Your task to perform on an android device: turn off location Image 0: 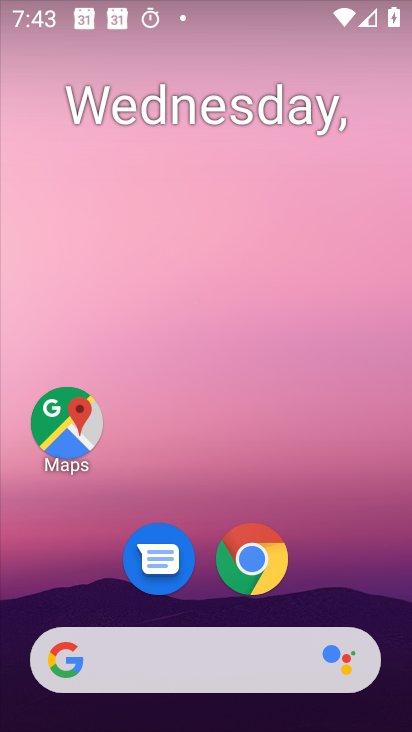
Step 0: drag from (330, 585) to (297, 1)
Your task to perform on an android device: turn off location Image 1: 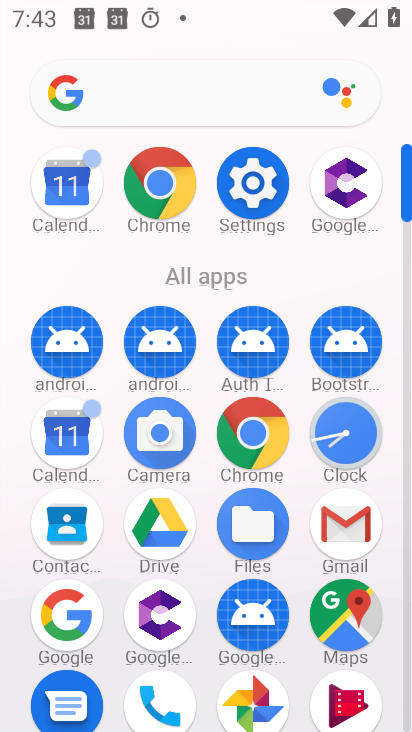
Step 1: click (250, 197)
Your task to perform on an android device: turn off location Image 2: 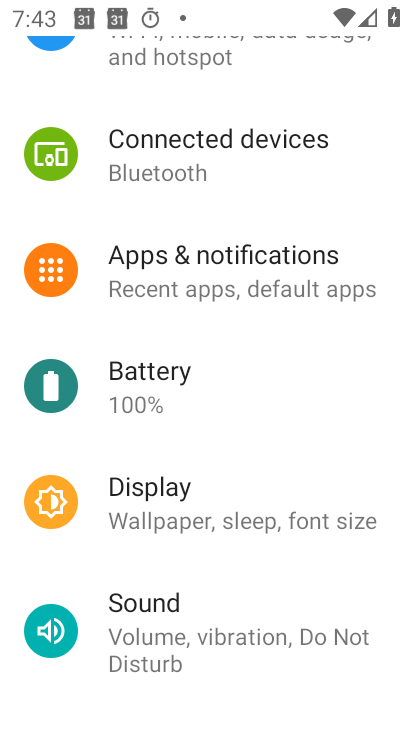
Step 2: drag from (347, 244) to (331, 519)
Your task to perform on an android device: turn off location Image 3: 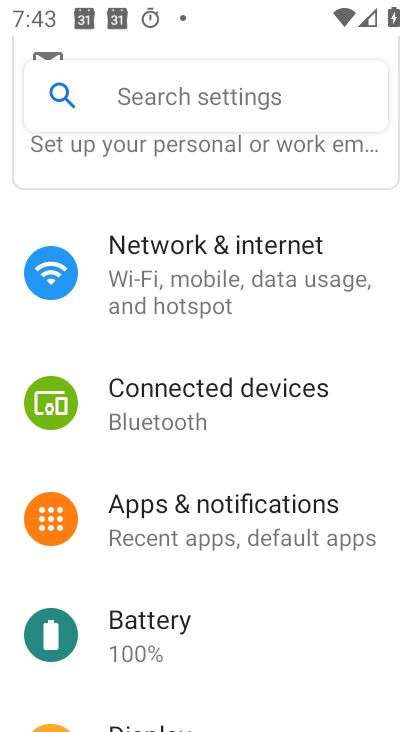
Step 3: drag from (330, 519) to (311, 76)
Your task to perform on an android device: turn off location Image 4: 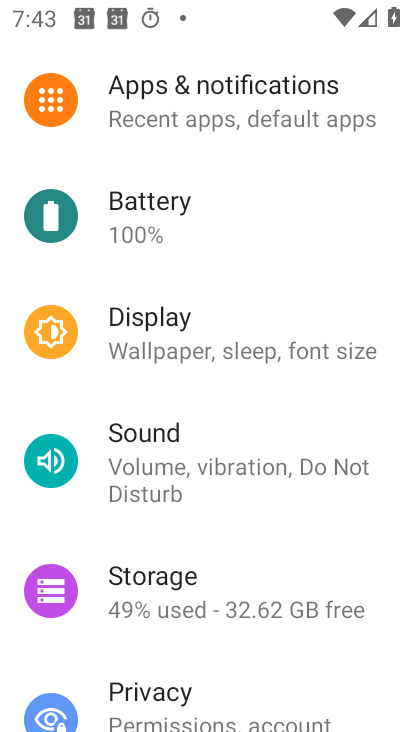
Step 4: drag from (264, 521) to (240, 142)
Your task to perform on an android device: turn off location Image 5: 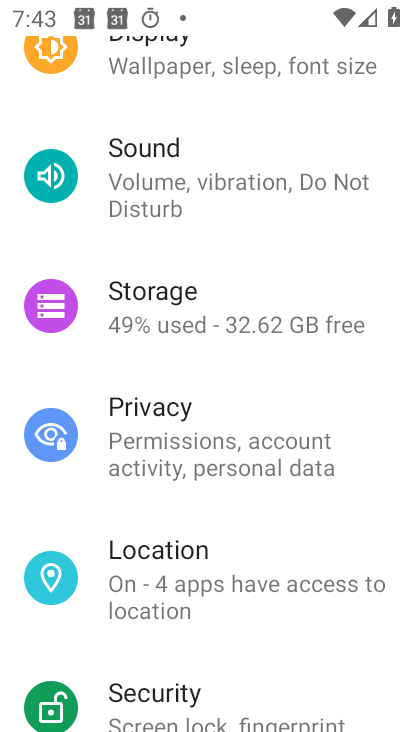
Step 5: drag from (323, 599) to (313, 343)
Your task to perform on an android device: turn off location Image 6: 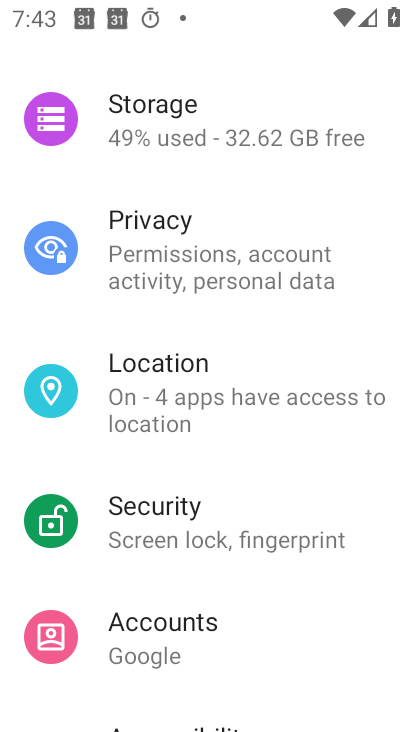
Step 6: click (147, 374)
Your task to perform on an android device: turn off location Image 7: 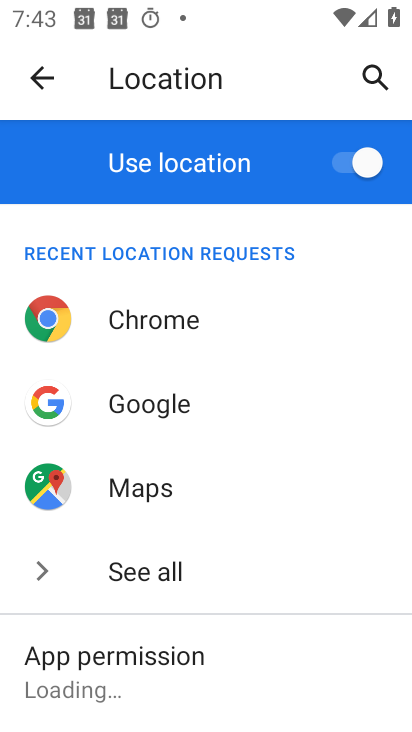
Step 7: click (372, 178)
Your task to perform on an android device: turn off location Image 8: 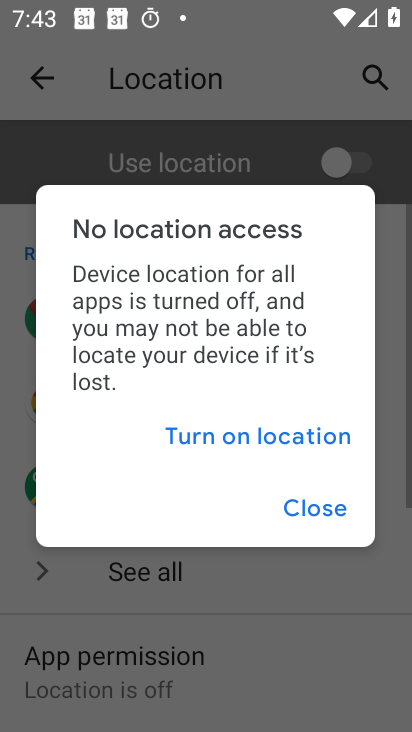
Step 8: task complete